Your task to perform on an android device: Clear the cart on ebay.com. Search for macbook pro on ebay.com, select the first entry, and add it to the cart. Image 0: 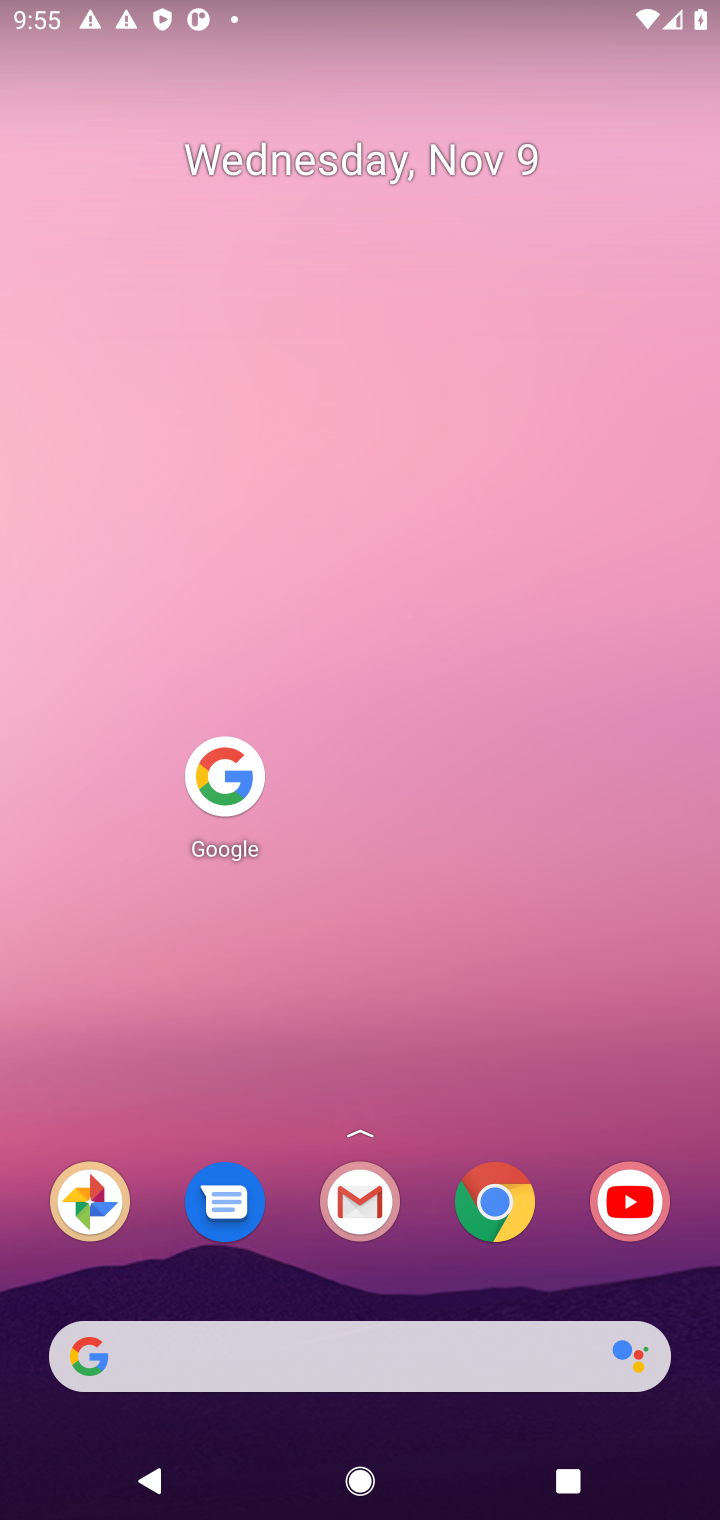
Step 0: click (223, 778)
Your task to perform on an android device: Clear the cart on ebay.com. Search for macbook pro on ebay.com, select the first entry, and add it to the cart. Image 1: 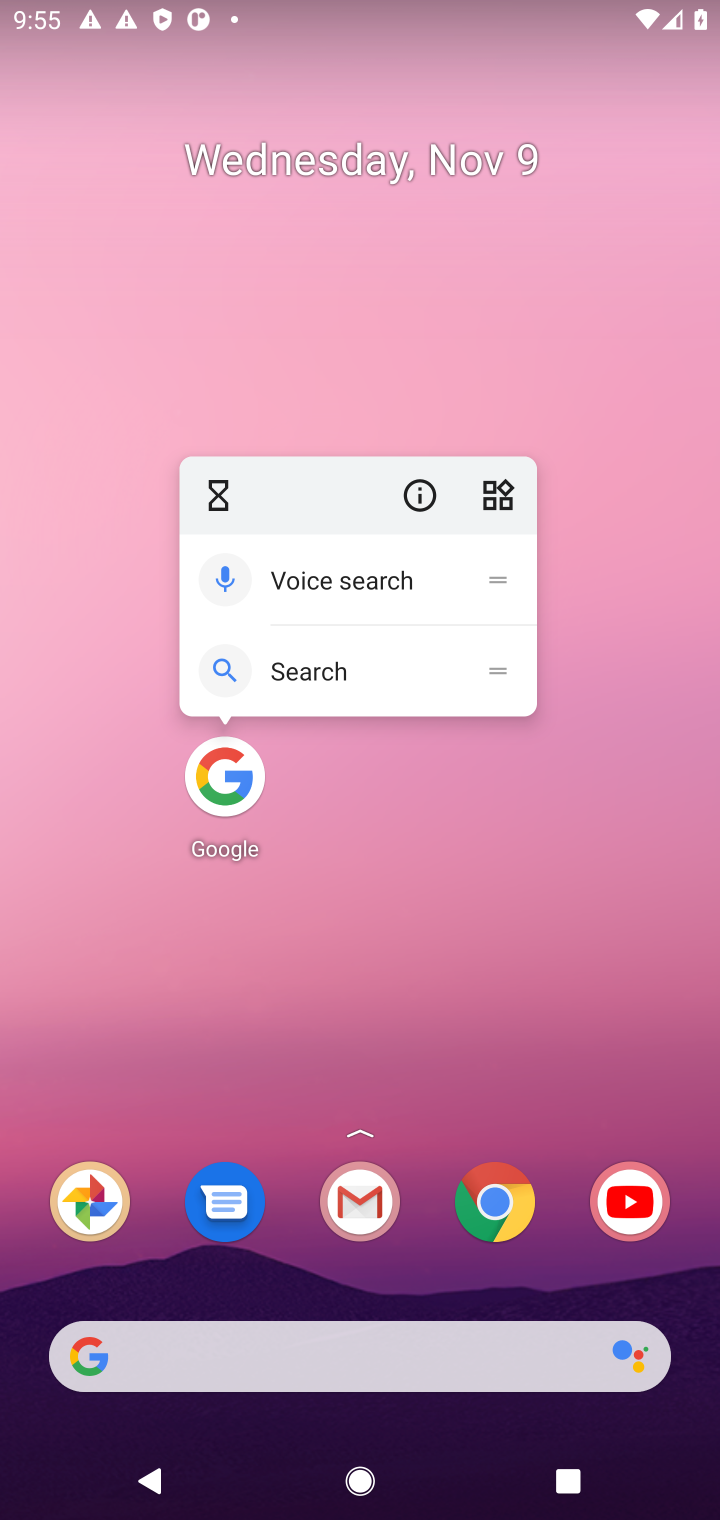
Step 1: click (223, 776)
Your task to perform on an android device: Clear the cart on ebay.com. Search for macbook pro on ebay.com, select the first entry, and add it to the cart. Image 2: 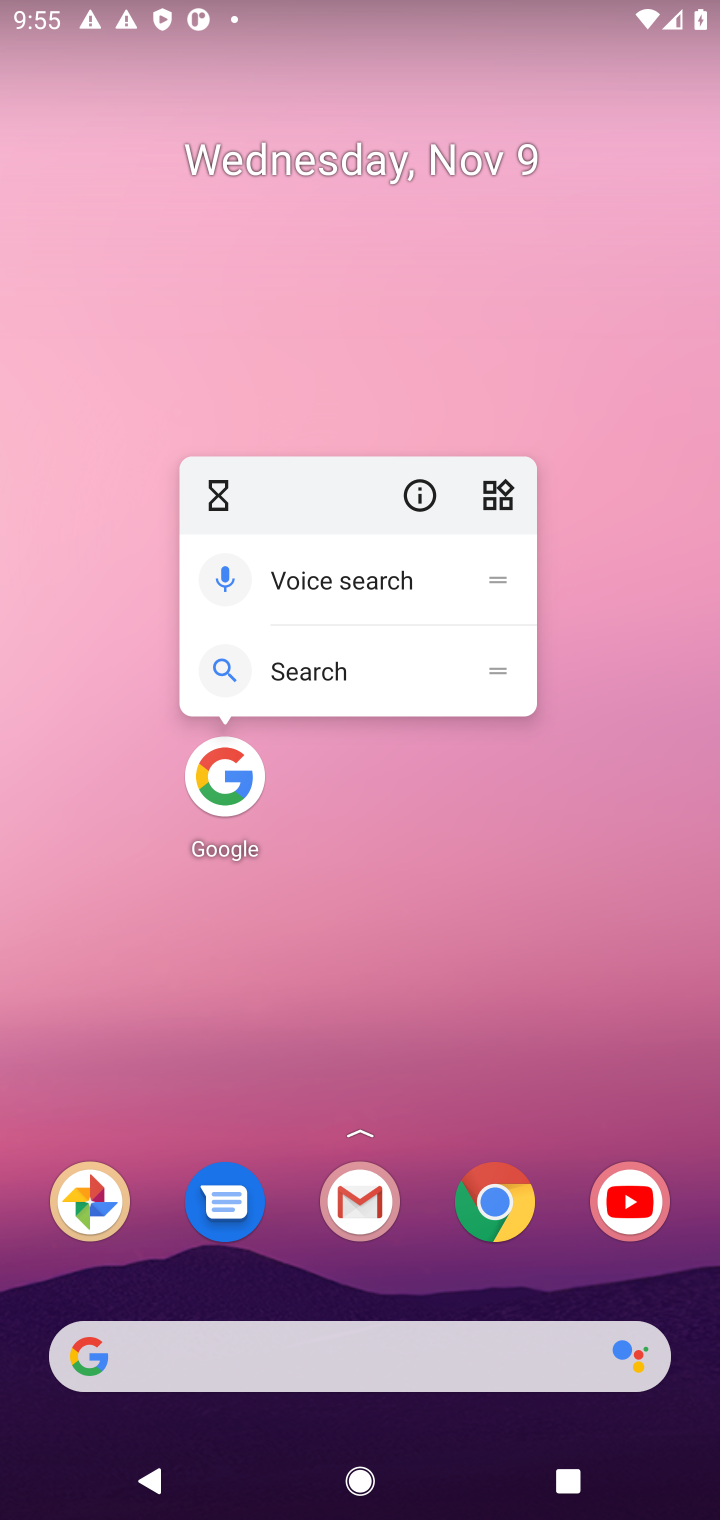
Step 2: click (223, 778)
Your task to perform on an android device: Clear the cart on ebay.com. Search for macbook pro on ebay.com, select the first entry, and add it to the cart. Image 3: 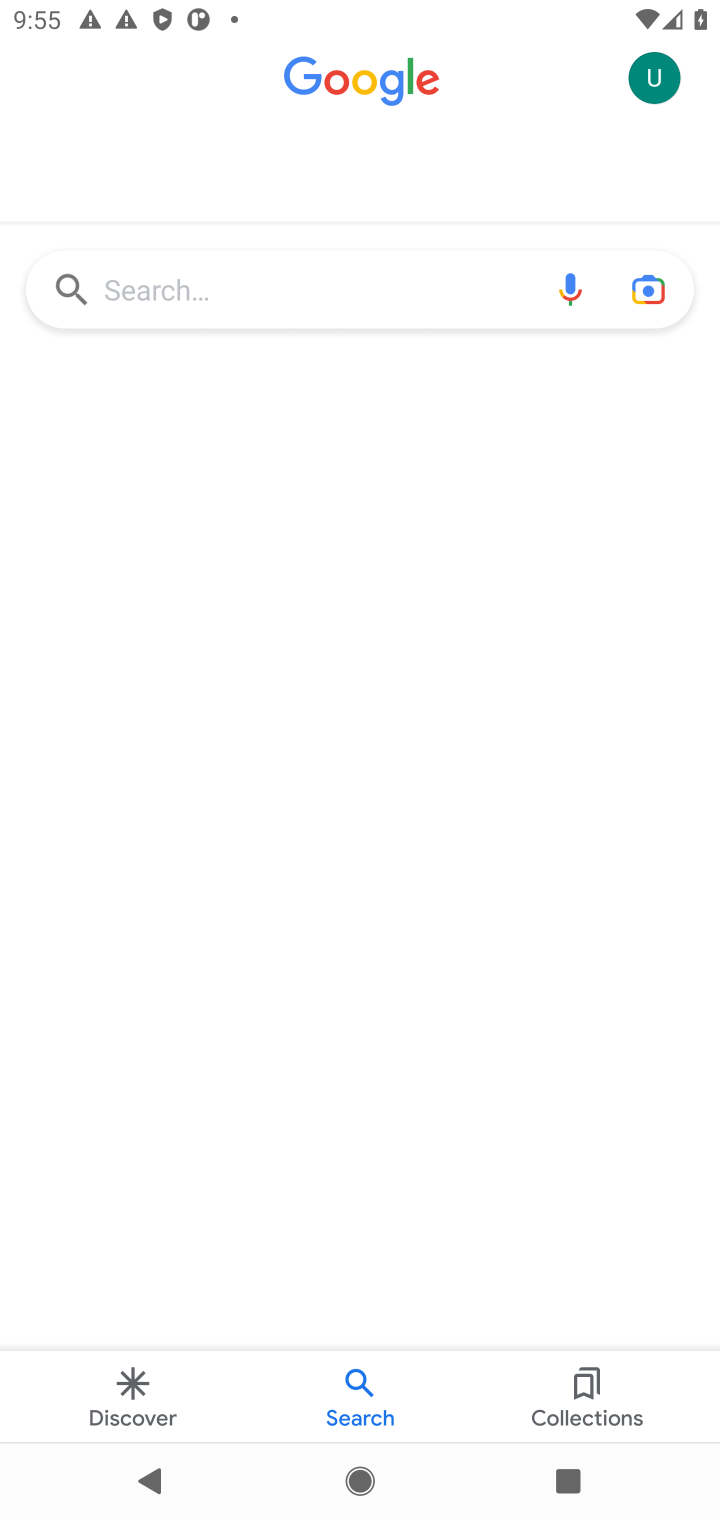
Step 3: click (362, 1385)
Your task to perform on an android device: Clear the cart on ebay.com. Search for macbook pro on ebay.com, select the first entry, and add it to the cart. Image 4: 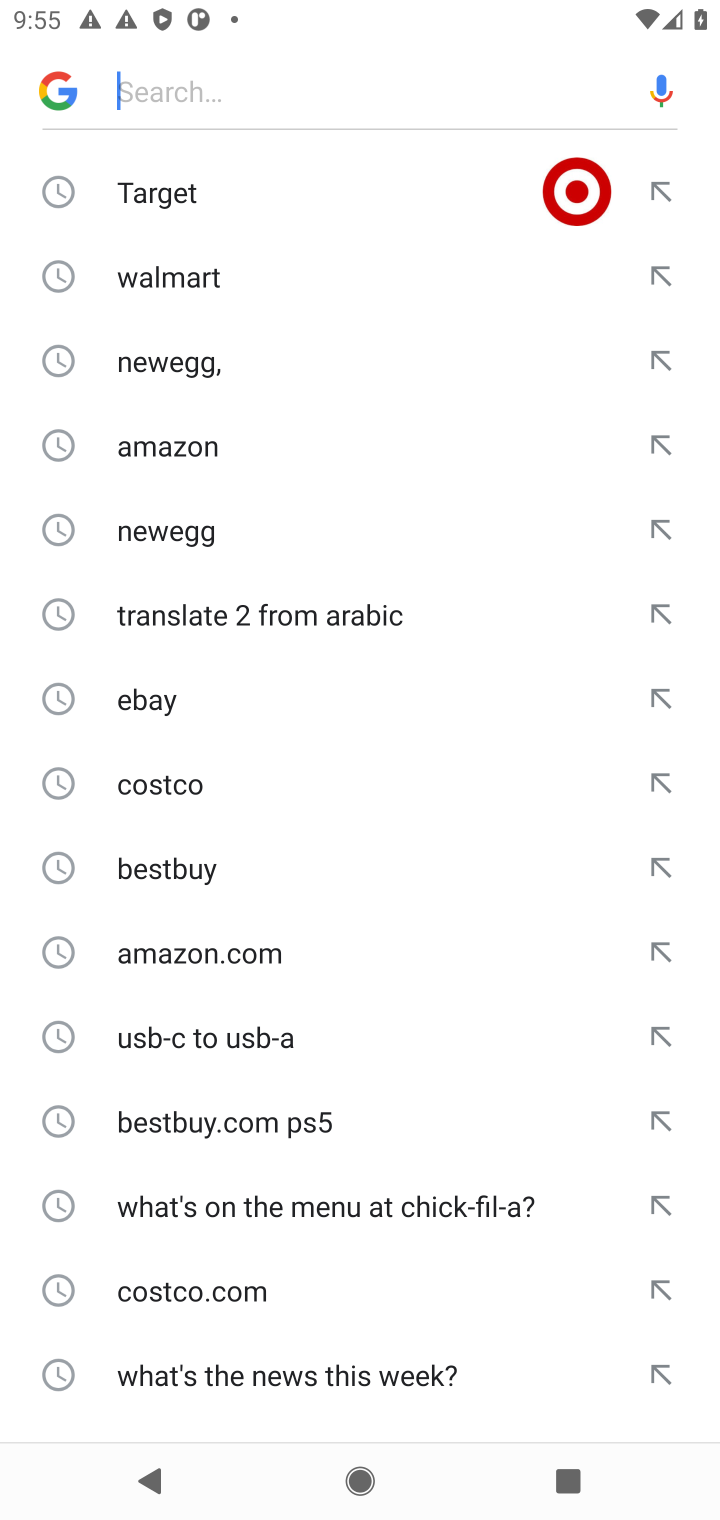
Step 4: click (342, 271)
Your task to perform on an android device: Clear the cart on ebay.com. Search for macbook pro on ebay.com, select the first entry, and add it to the cart. Image 5: 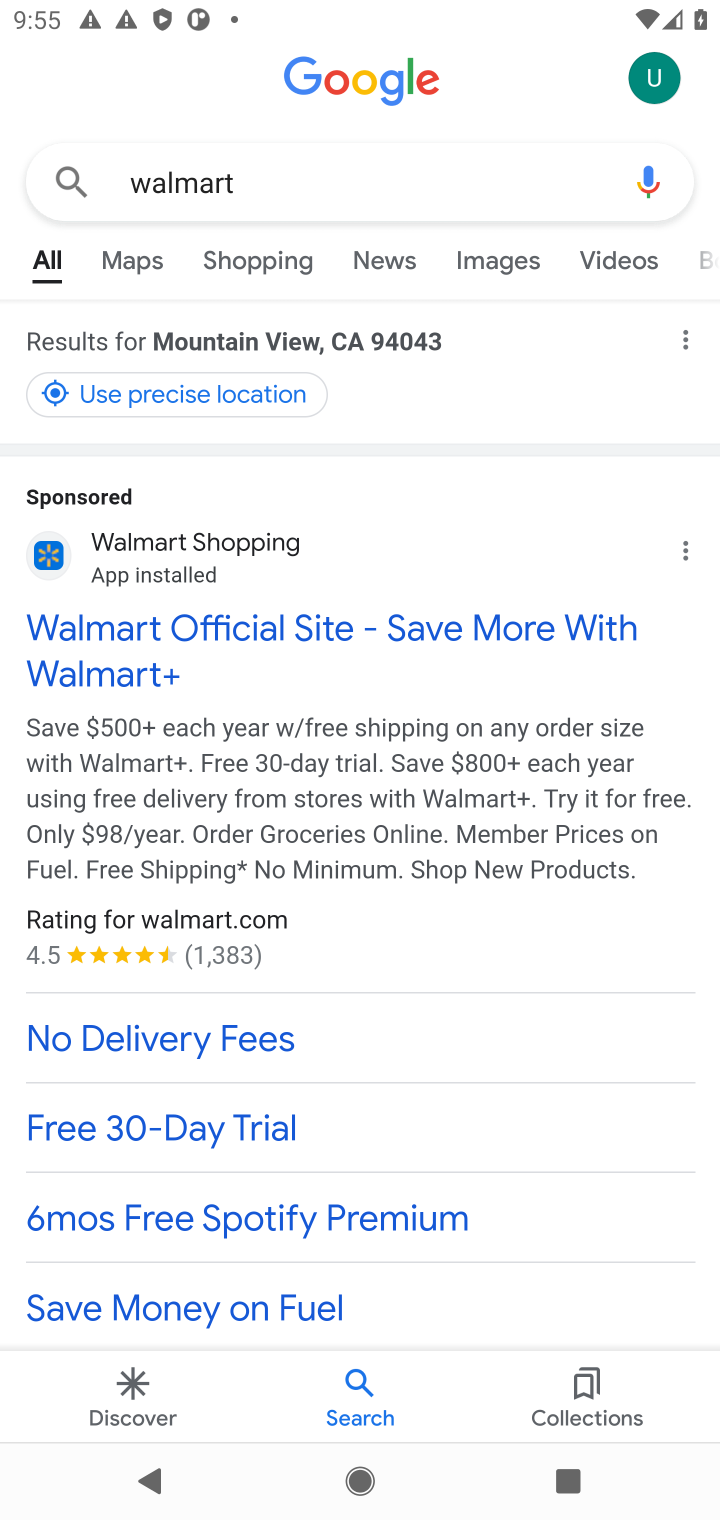
Step 5: press back button
Your task to perform on an android device: Clear the cart on ebay.com. Search for macbook pro on ebay.com, select the first entry, and add it to the cart. Image 6: 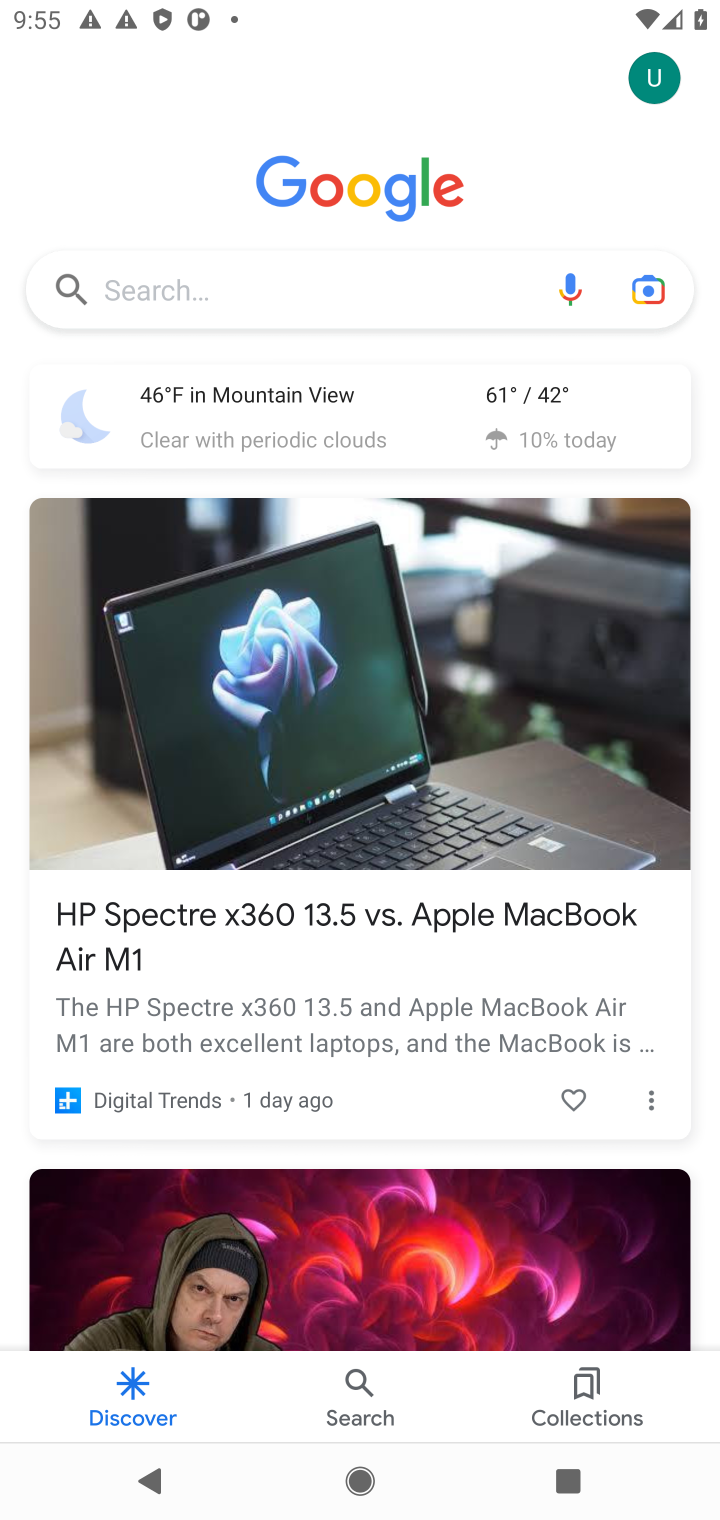
Step 6: click (342, 1390)
Your task to perform on an android device: Clear the cart on ebay.com. Search for macbook pro on ebay.com, select the first entry, and add it to the cart. Image 7: 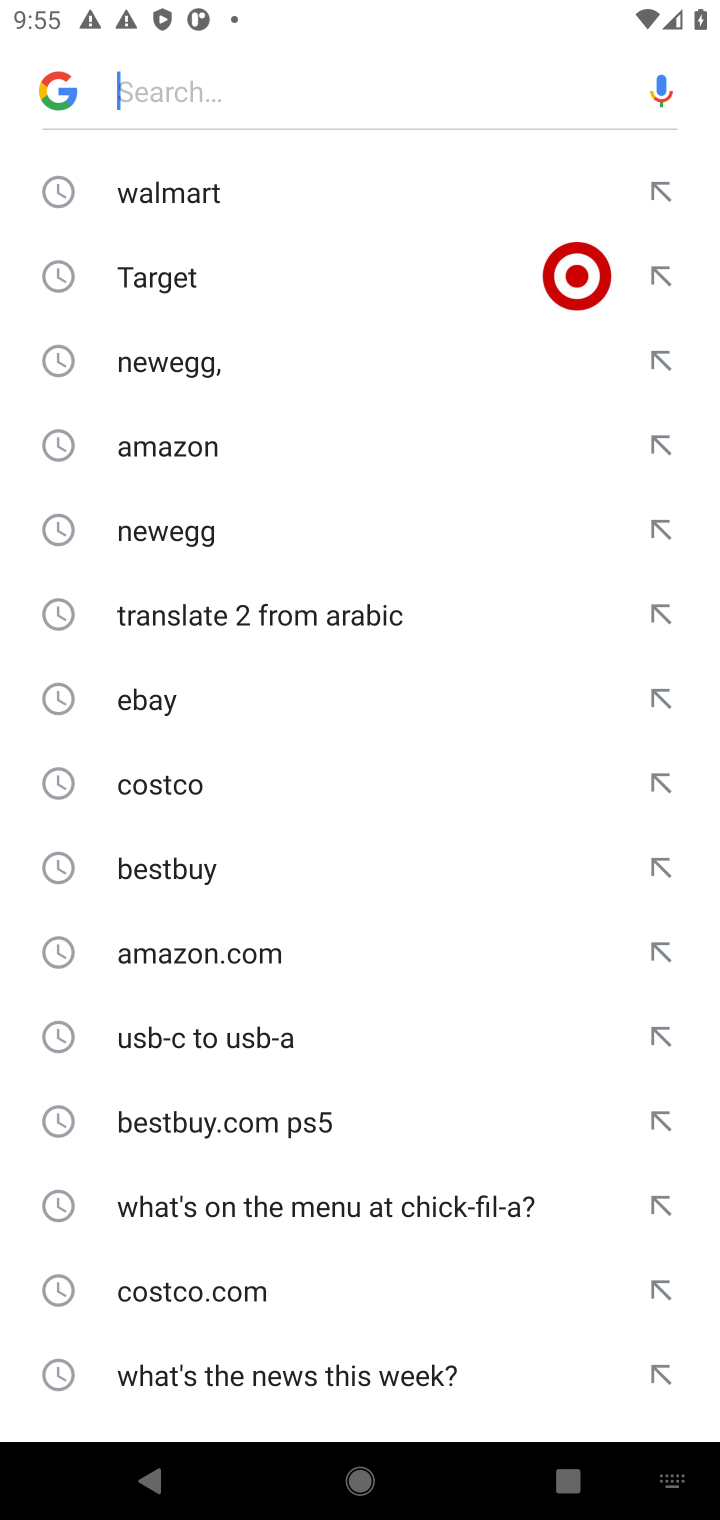
Step 7: click (157, 697)
Your task to perform on an android device: Clear the cart on ebay.com. Search for macbook pro on ebay.com, select the first entry, and add it to the cart. Image 8: 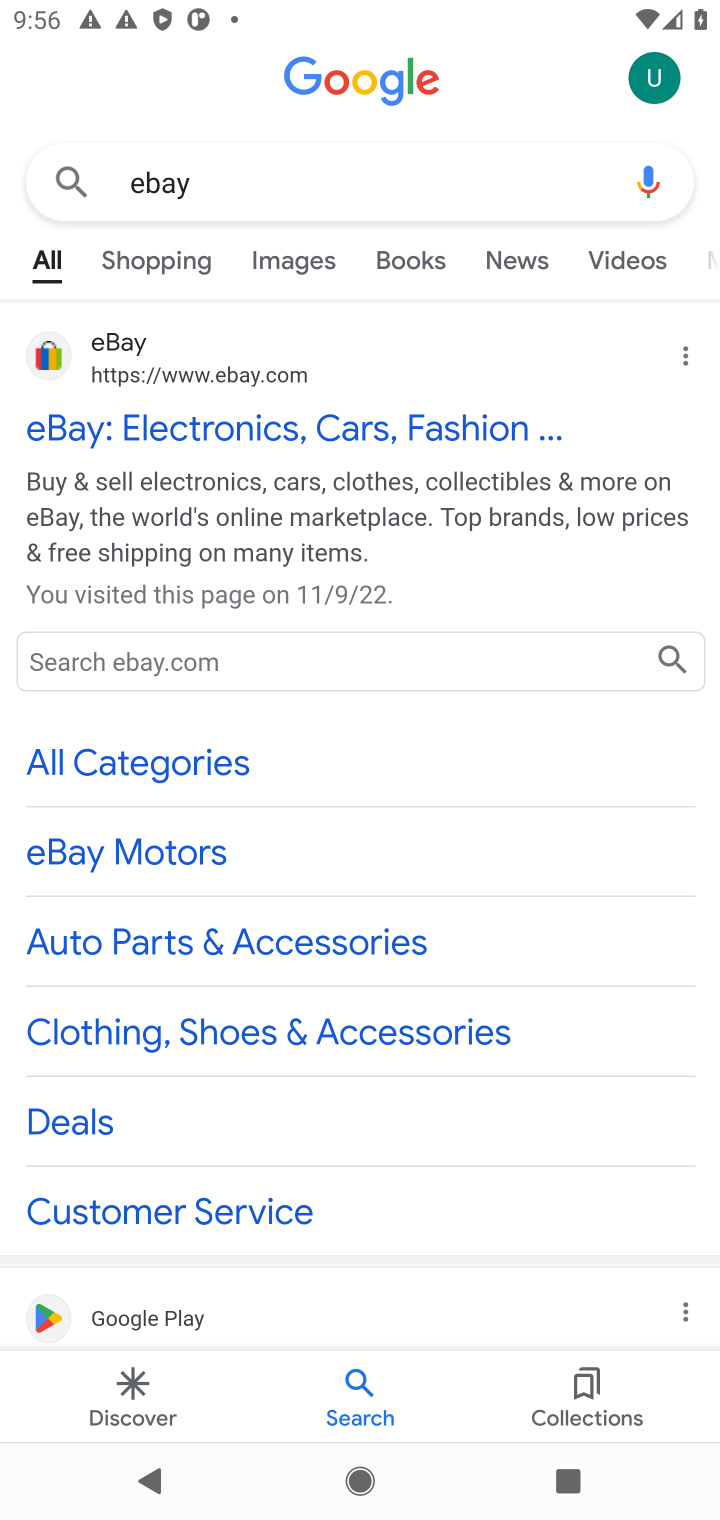
Step 8: click (276, 428)
Your task to perform on an android device: Clear the cart on ebay.com. Search for macbook pro on ebay.com, select the first entry, and add it to the cart. Image 9: 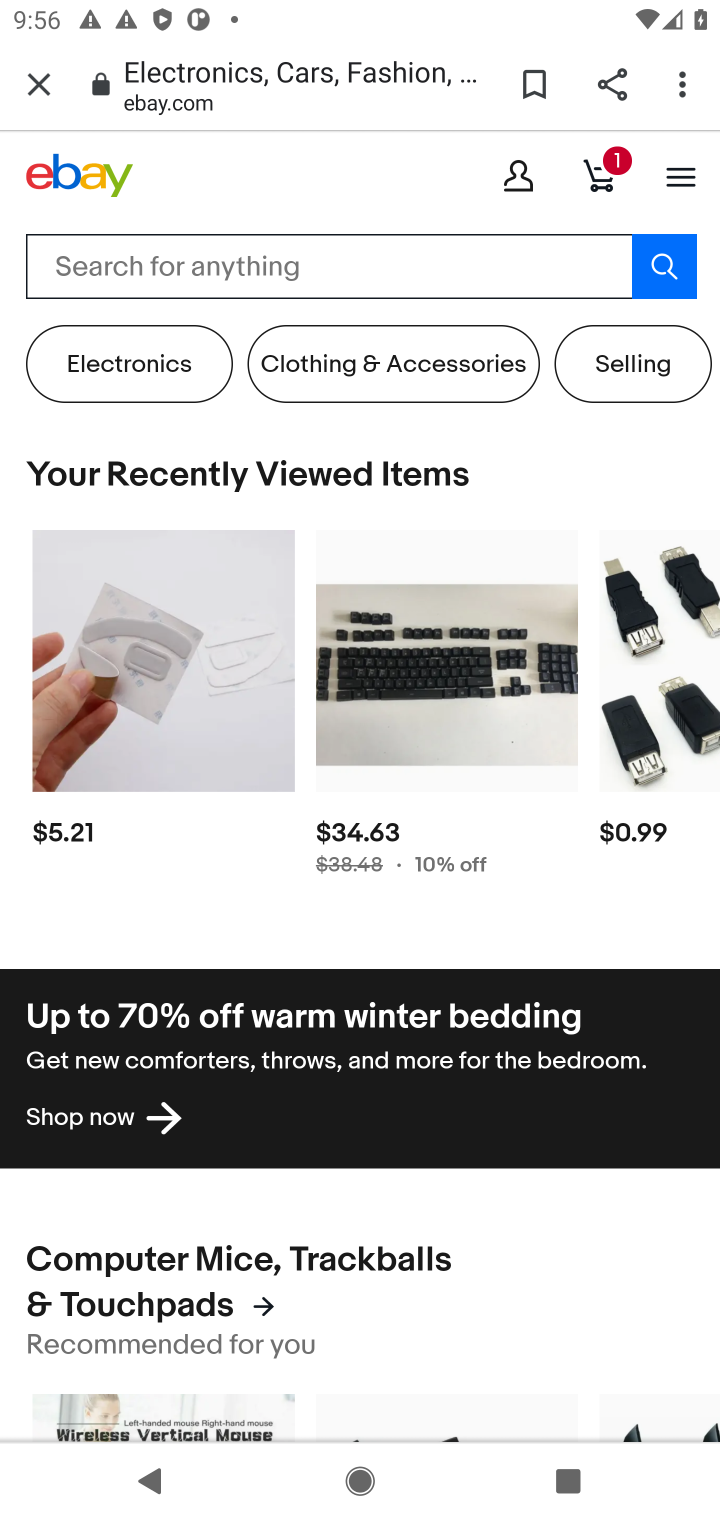
Step 9: click (236, 262)
Your task to perform on an android device: Clear the cart on ebay.com. Search for macbook pro on ebay.com, select the first entry, and add it to the cart. Image 10: 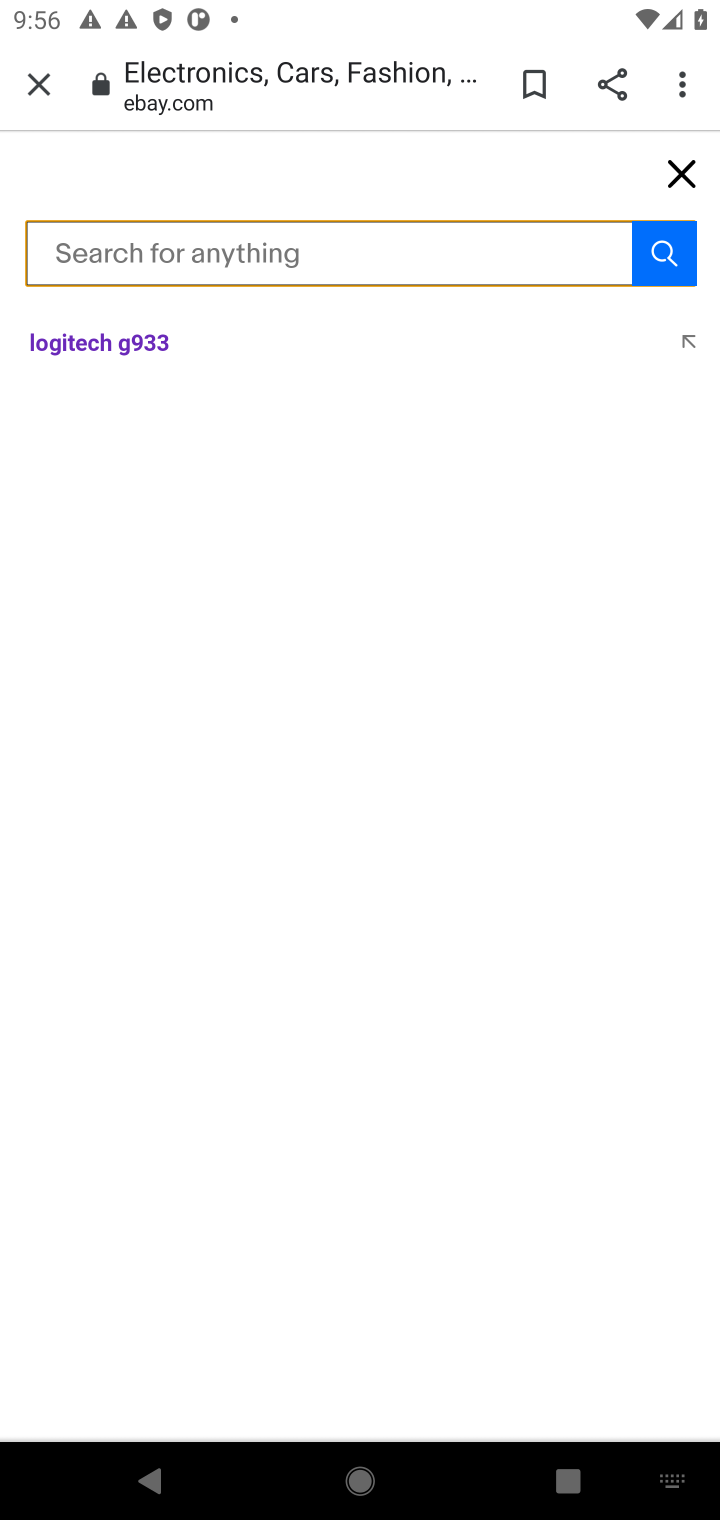
Step 10: type "macbook pro"
Your task to perform on an android device: Clear the cart on ebay.com. Search for macbook pro on ebay.com, select the first entry, and add it to the cart. Image 11: 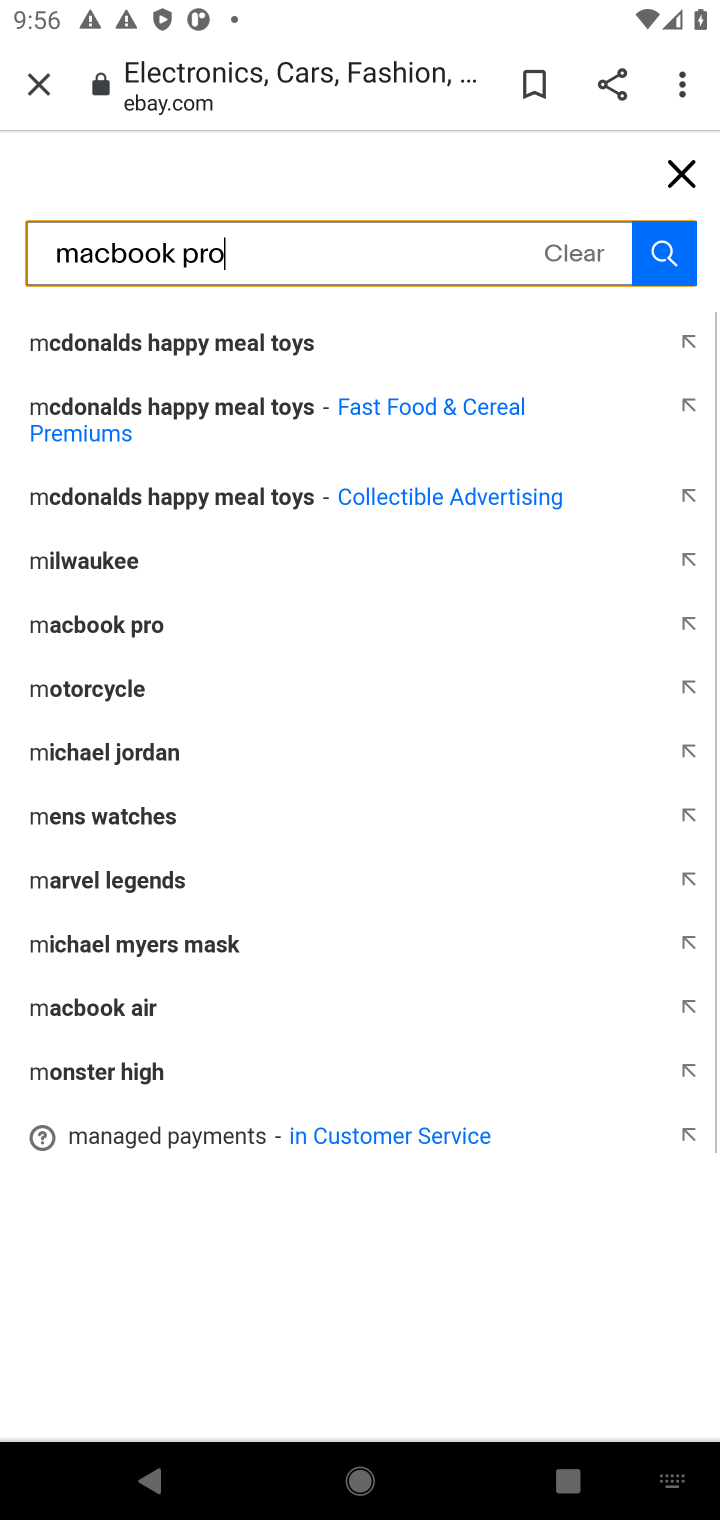
Step 11: press enter
Your task to perform on an android device: Clear the cart on ebay.com. Search for macbook pro on ebay.com, select the first entry, and add it to the cart. Image 12: 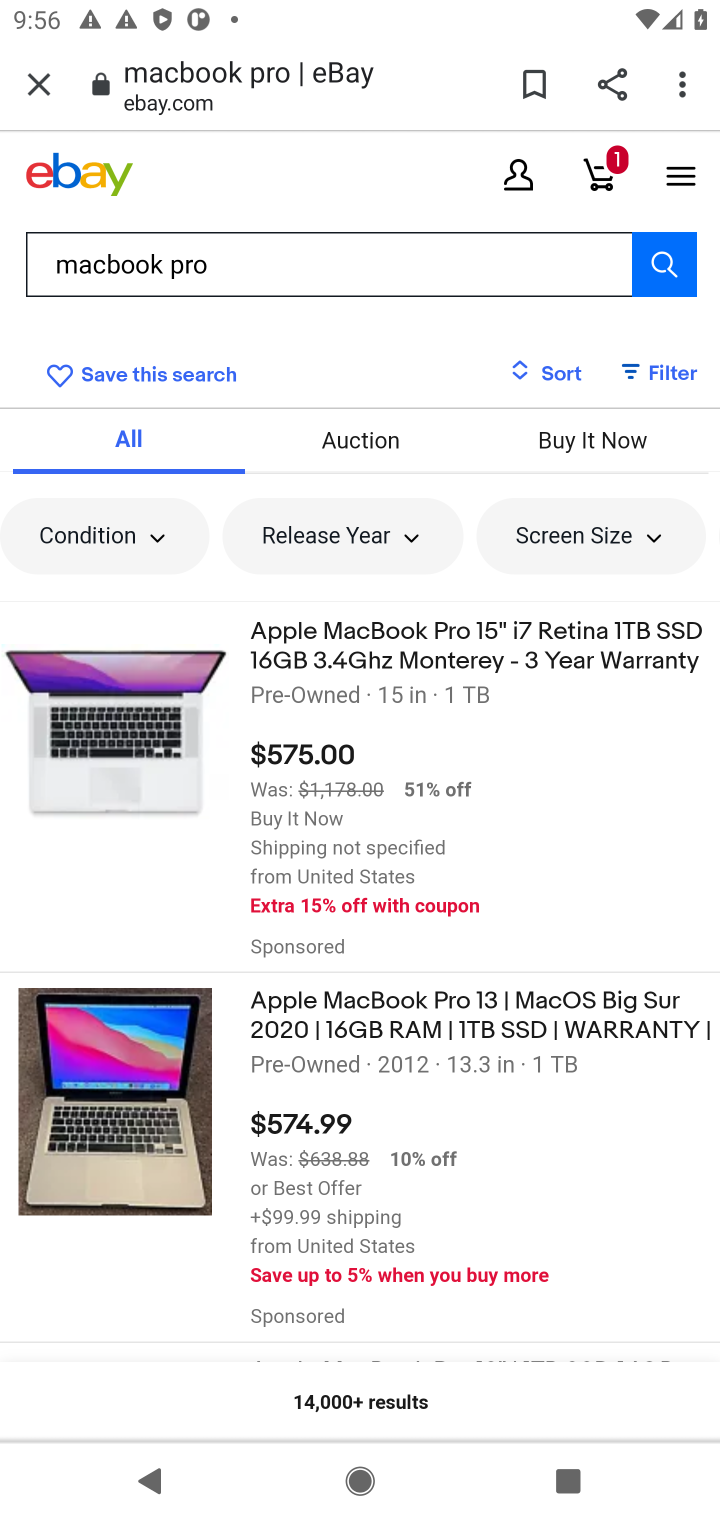
Step 12: click (368, 701)
Your task to perform on an android device: Clear the cart on ebay.com. Search for macbook pro on ebay.com, select the first entry, and add it to the cart. Image 13: 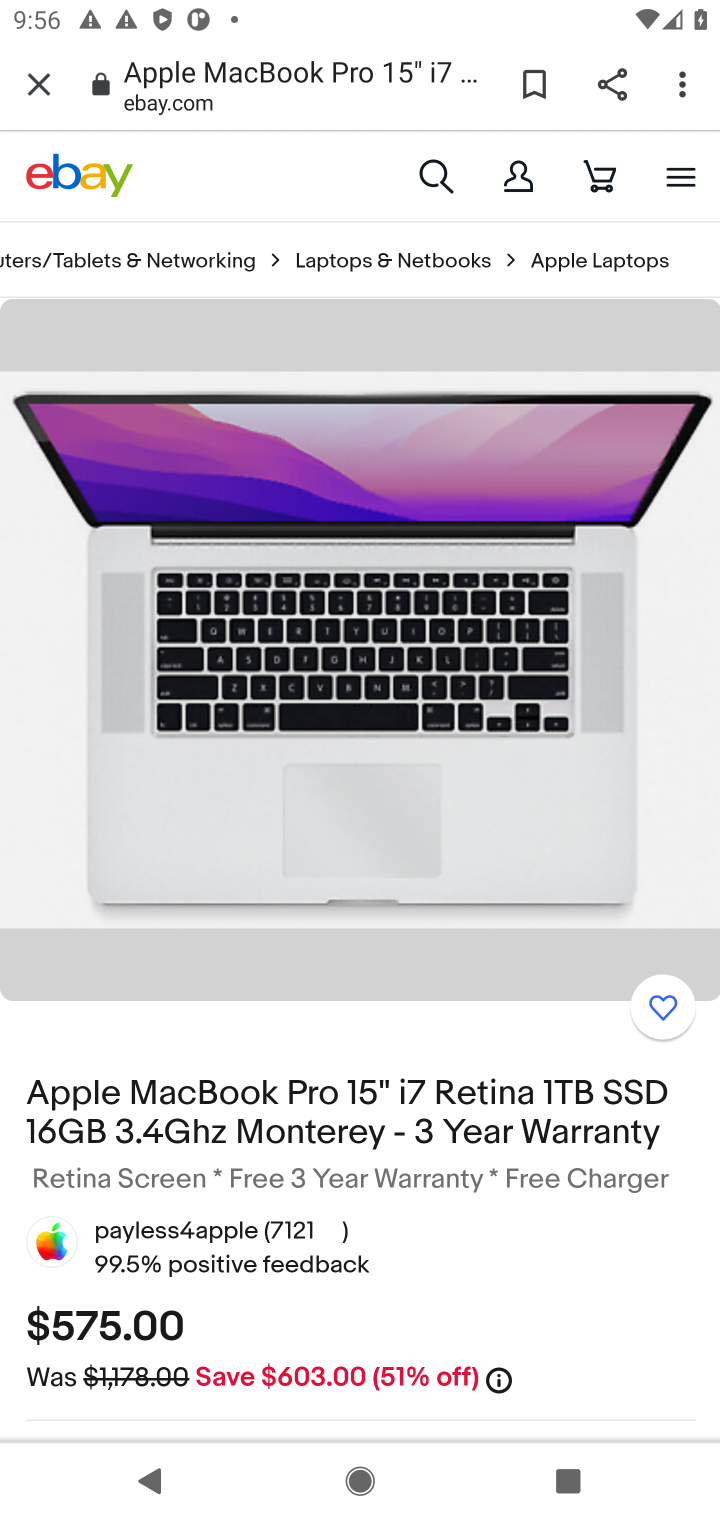
Step 13: drag from (386, 1135) to (665, 177)
Your task to perform on an android device: Clear the cart on ebay.com. Search for macbook pro on ebay.com, select the first entry, and add it to the cart. Image 14: 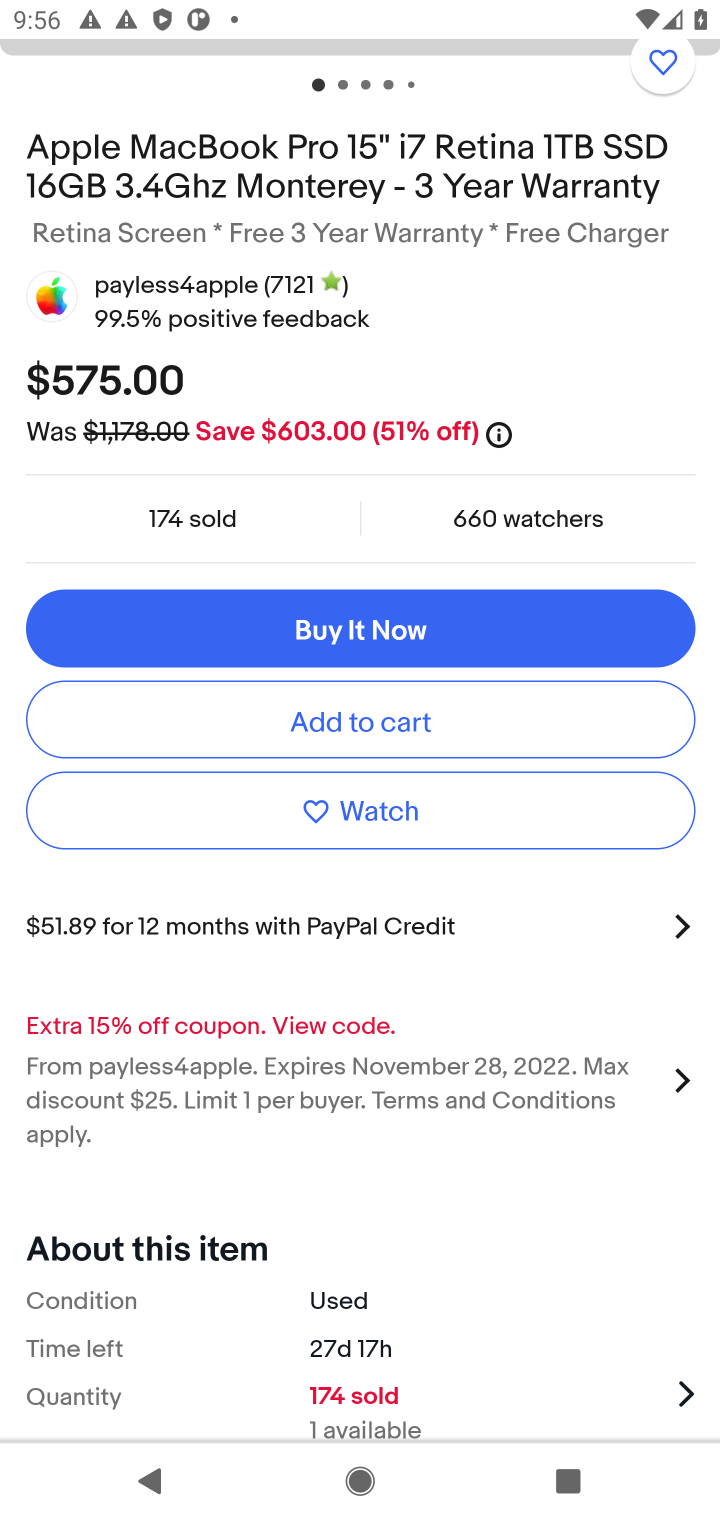
Step 14: click (343, 714)
Your task to perform on an android device: Clear the cart on ebay.com. Search for macbook pro on ebay.com, select the first entry, and add it to the cart. Image 15: 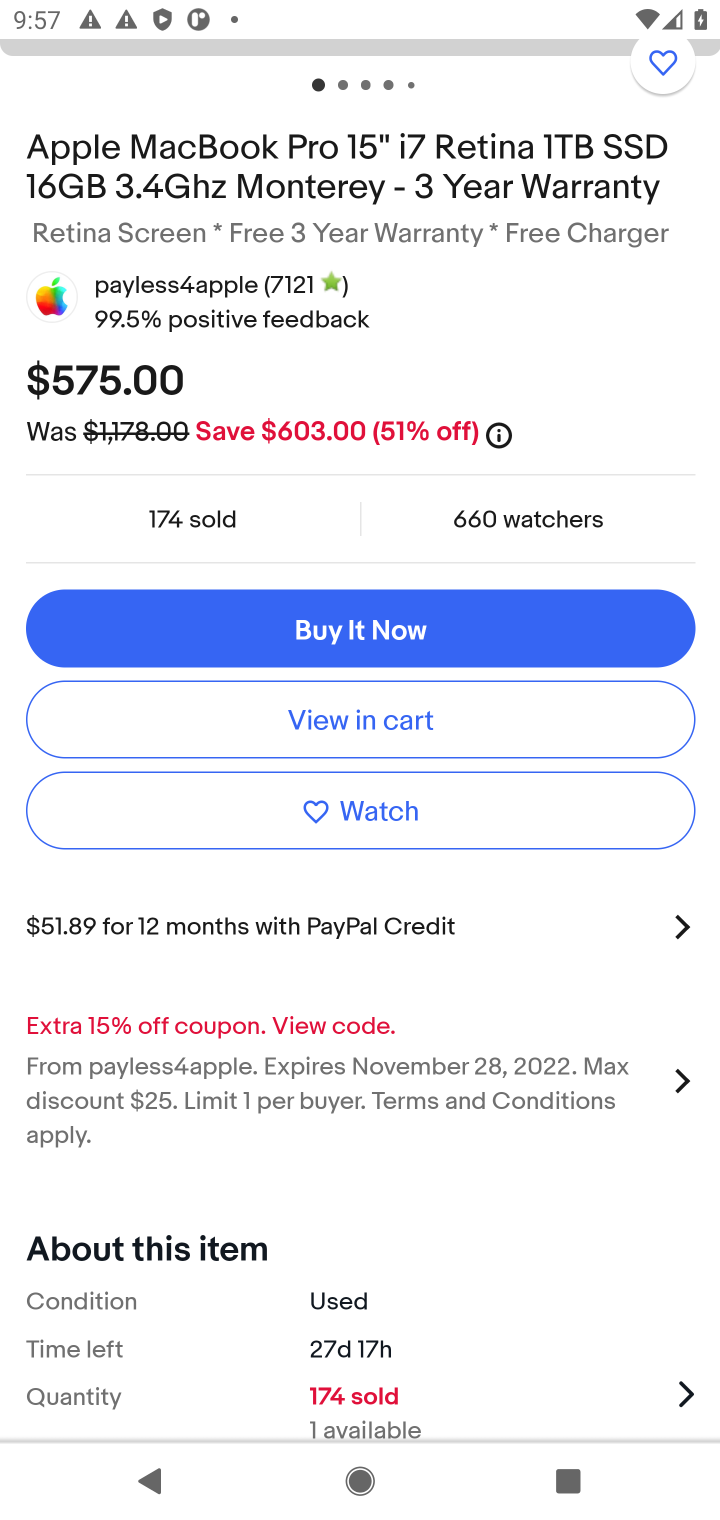
Step 15: click (380, 710)
Your task to perform on an android device: Clear the cart on ebay.com. Search for macbook pro on ebay.com, select the first entry, and add it to the cart. Image 16: 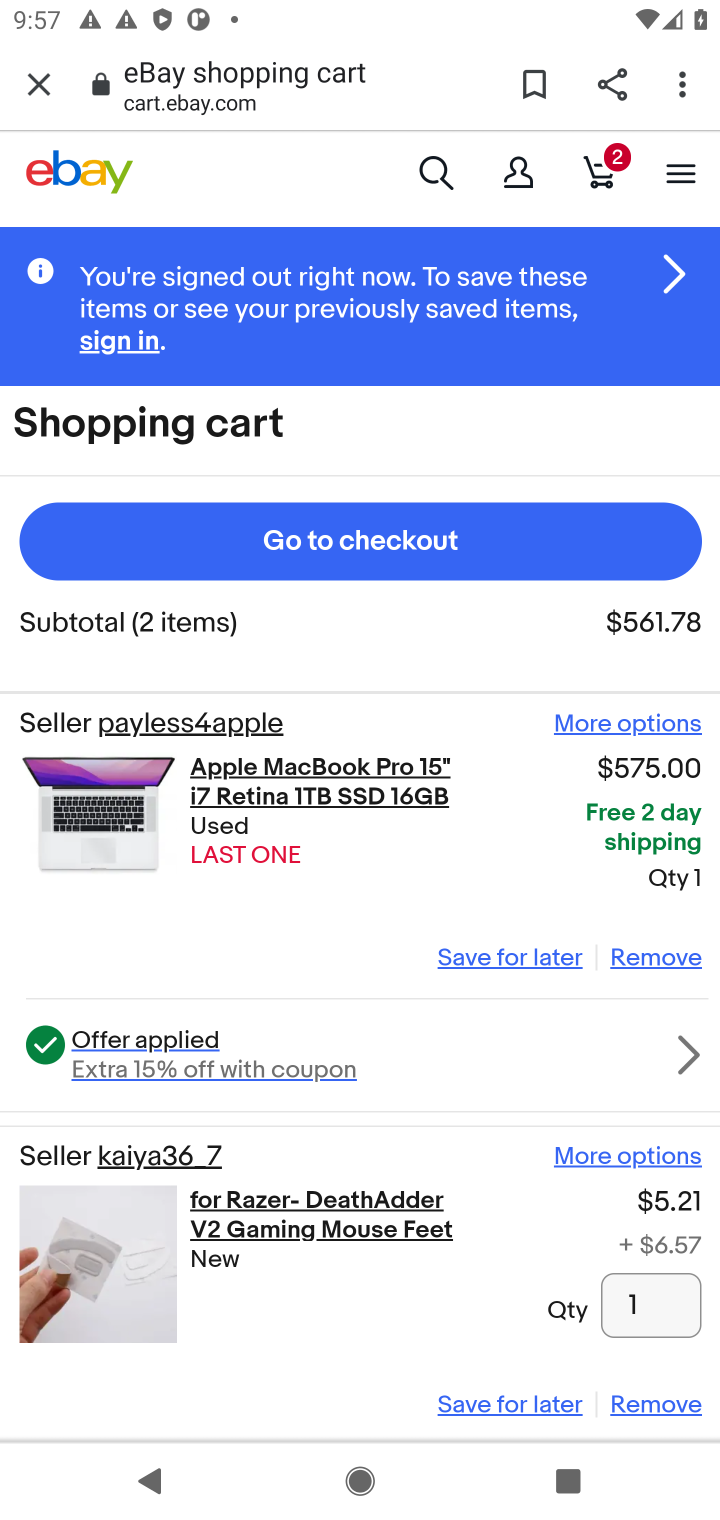
Step 16: click (648, 1396)
Your task to perform on an android device: Clear the cart on ebay.com. Search for macbook pro on ebay.com, select the first entry, and add it to the cart. Image 17: 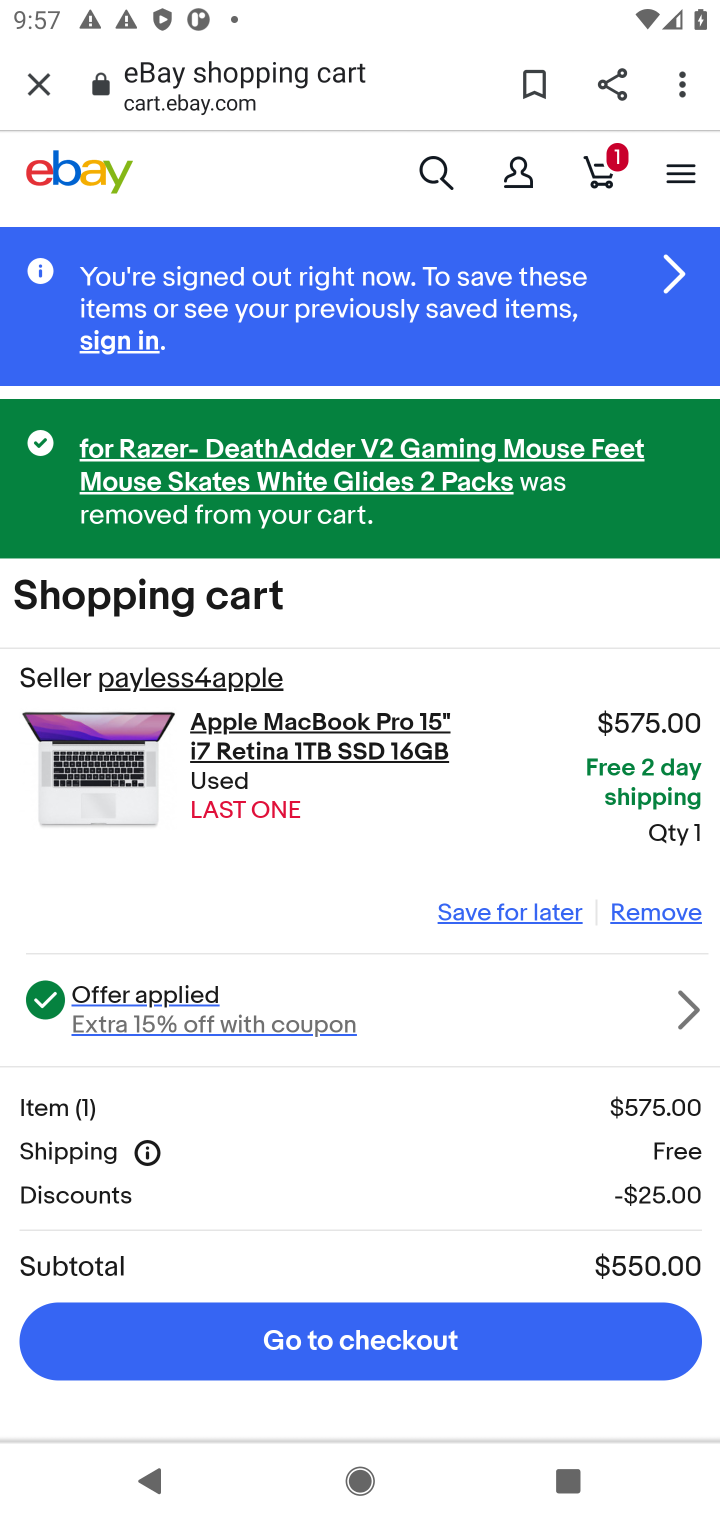
Step 17: task complete